Your task to perform on an android device: Find coffee shops on Maps Image 0: 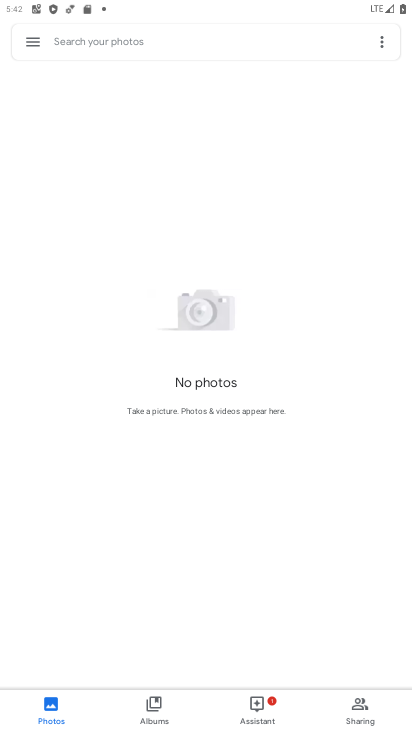
Step 0: press home button
Your task to perform on an android device: Find coffee shops on Maps Image 1: 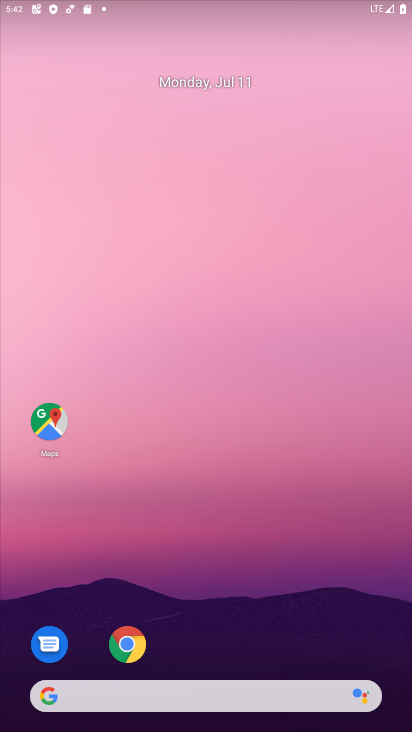
Step 1: drag from (108, 692) to (138, 24)
Your task to perform on an android device: Find coffee shops on Maps Image 2: 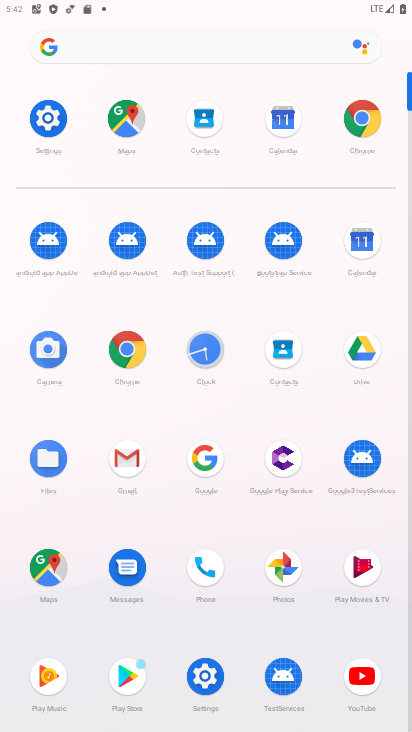
Step 2: click (41, 564)
Your task to perform on an android device: Find coffee shops on Maps Image 3: 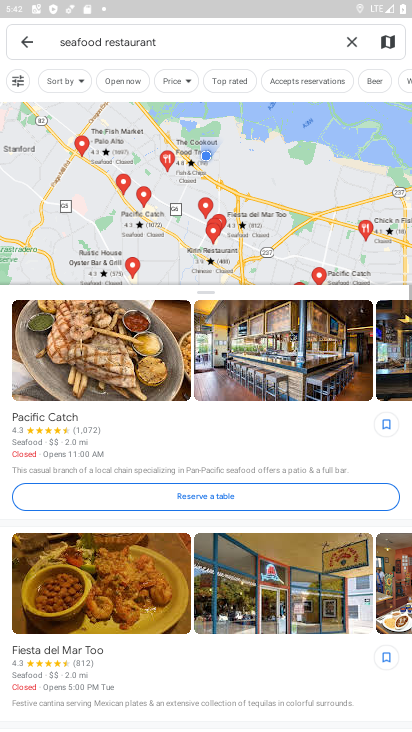
Step 3: click (346, 39)
Your task to perform on an android device: Find coffee shops on Maps Image 4: 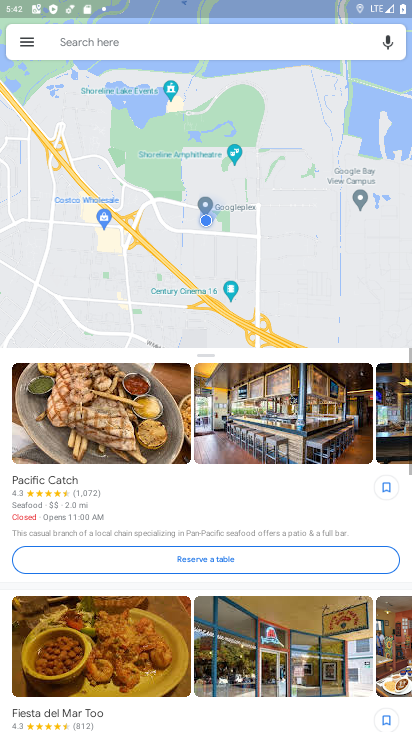
Step 4: click (200, 47)
Your task to perform on an android device: Find coffee shops on Maps Image 5: 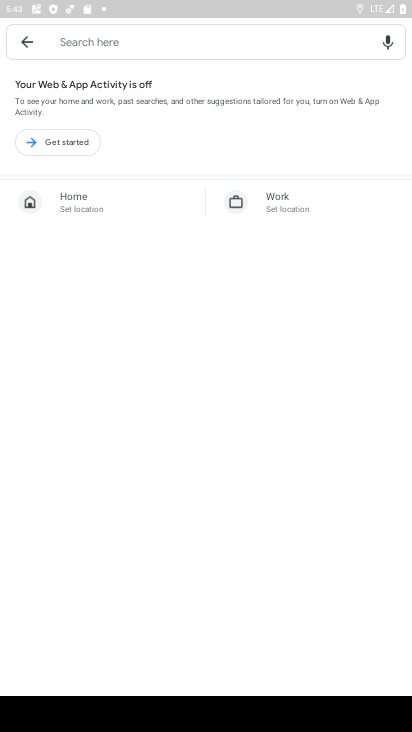
Step 5: type "coffee shops"
Your task to perform on an android device: Find coffee shops on Maps Image 6: 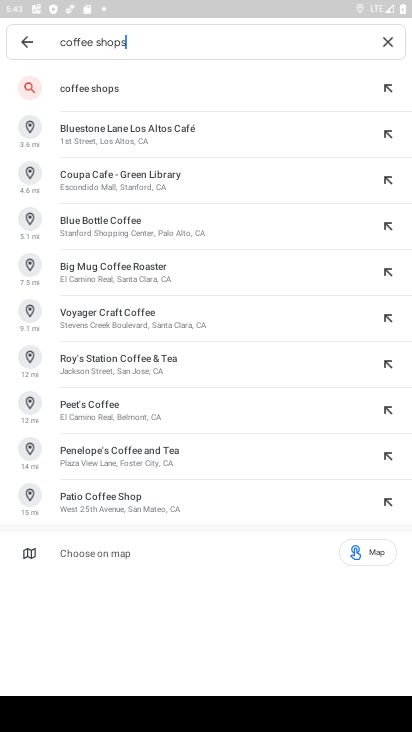
Step 6: click (115, 89)
Your task to perform on an android device: Find coffee shops on Maps Image 7: 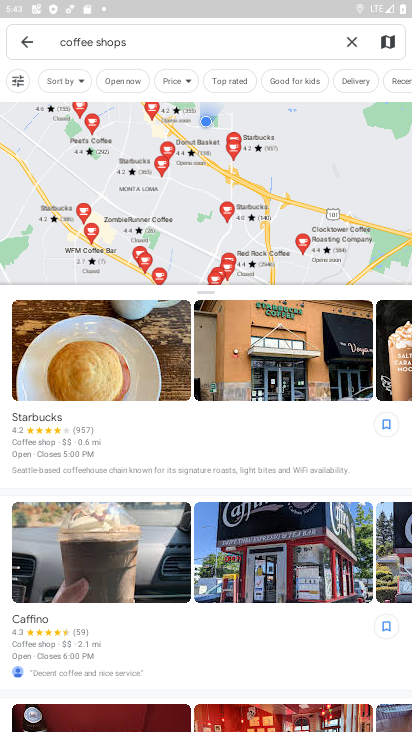
Step 7: task complete